Your task to perform on an android device: change the clock style Image 0: 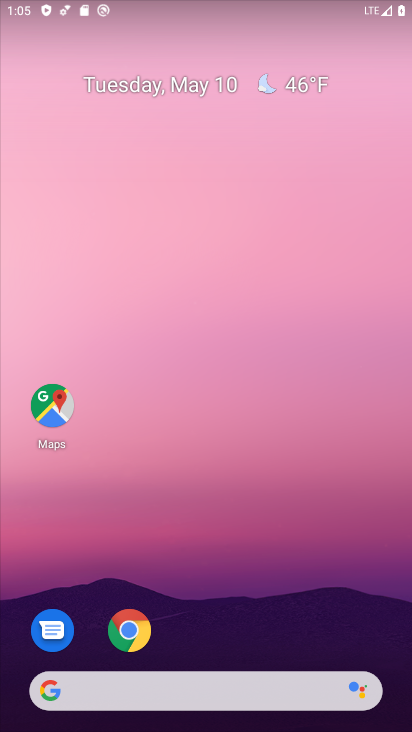
Step 0: drag from (189, 662) to (194, 11)
Your task to perform on an android device: change the clock style Image 1: 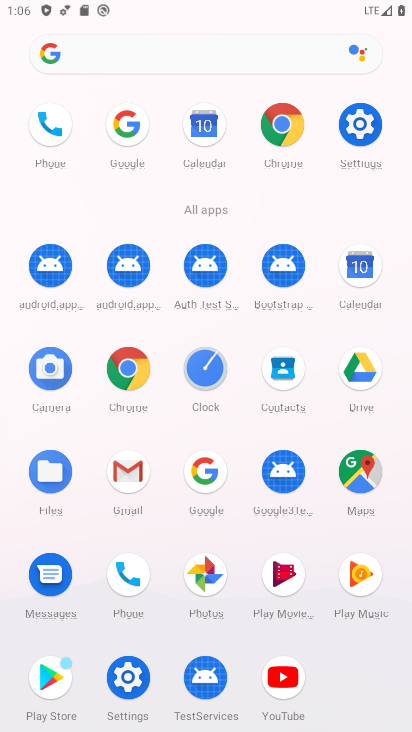
Step 1: click (204, 369)
Your task to perform on an android device: change the clock style Image 2: 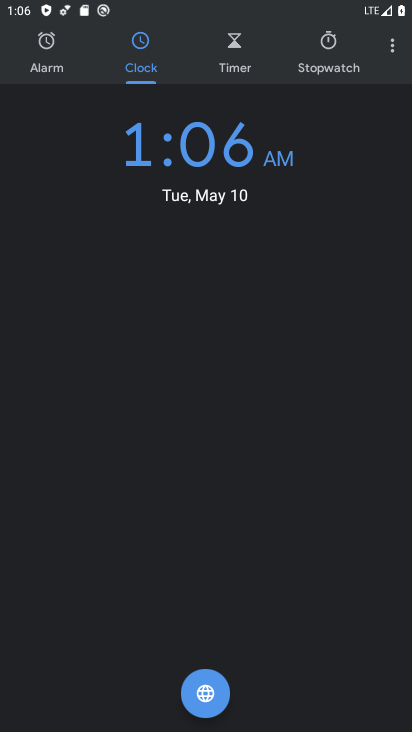
Step 2: click (385, 52)
Your task to perform on an android device: change the clock style Image 3: 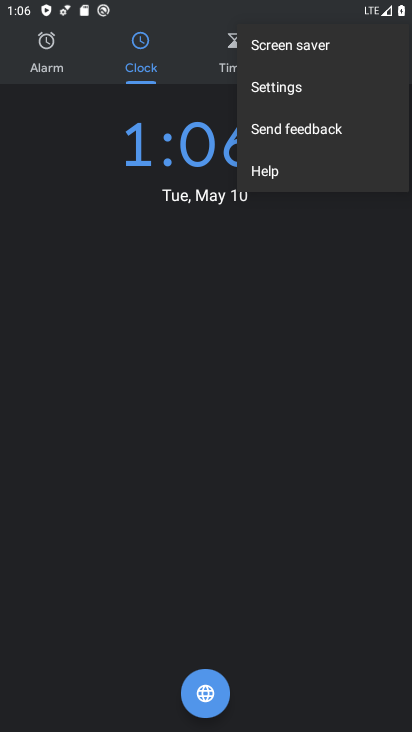
Step 3: click (308, 90)
Your task to perform on an android device: change the clock style Image 4: 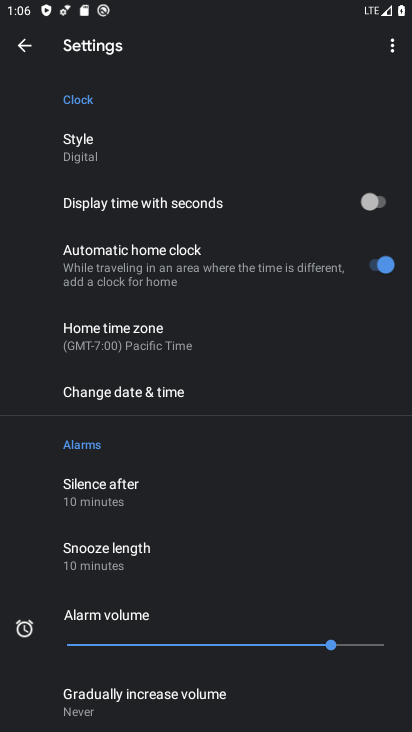
Step 4: click (116, 392)
Your task to perform on an android device: change the clock style Image 5: 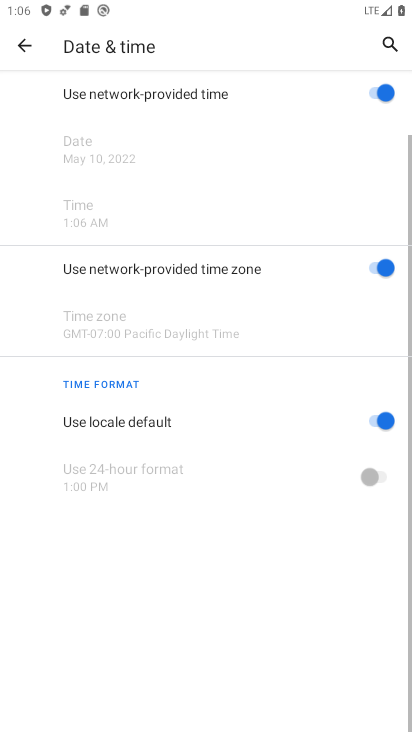
Step 5: click (23, 45)
Your task to perform on an android device: change the clock style Image 6: 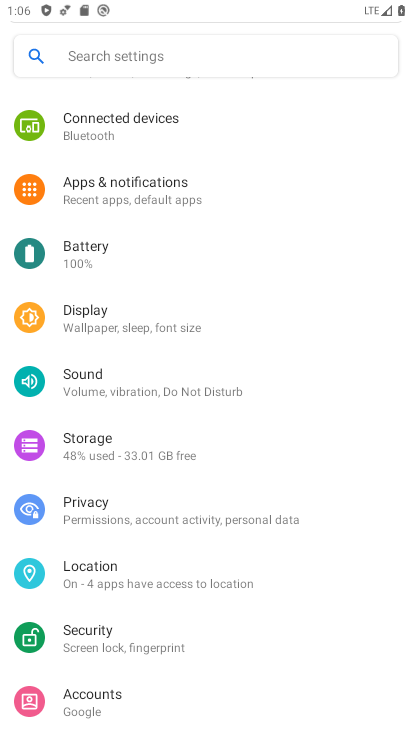
Step 6: press back button
Your task to perform on an android device: change the clock style Image 7: 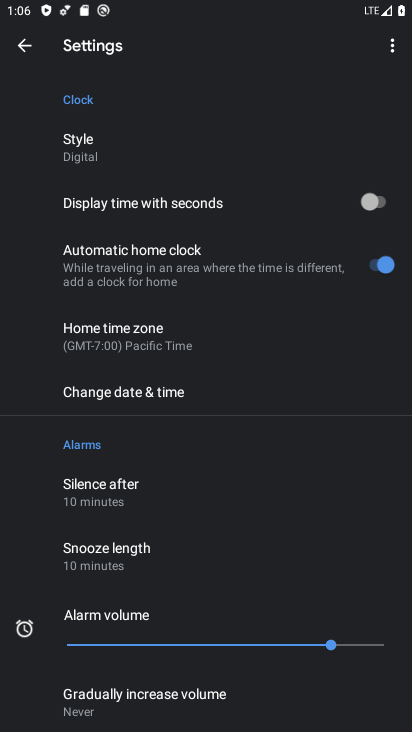
Step 7: click (87, 140)
Your task to perform on an android device: change the clock style Image 8: 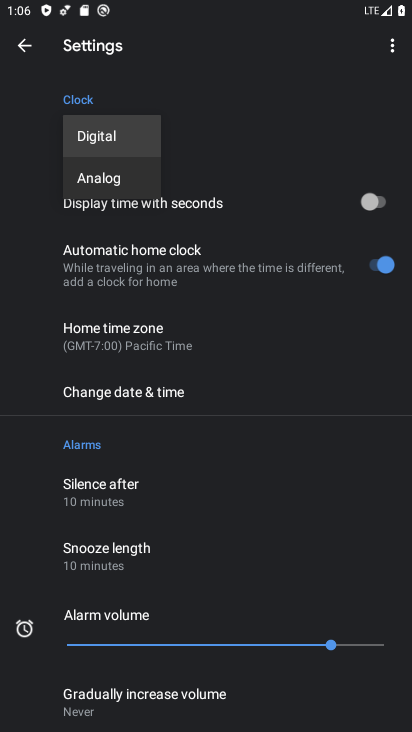
Step 8: click (97, 174)
Your task to perform on an android device: change the clock style Image 9: 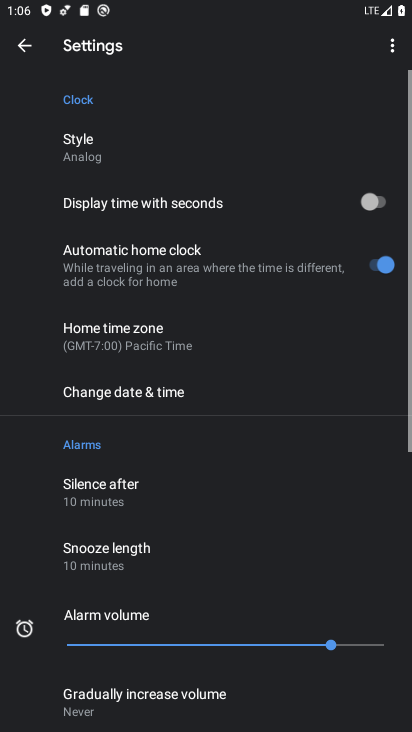
Step 9: task complete